Your task to perform on an android device: toggle location history Image 0: 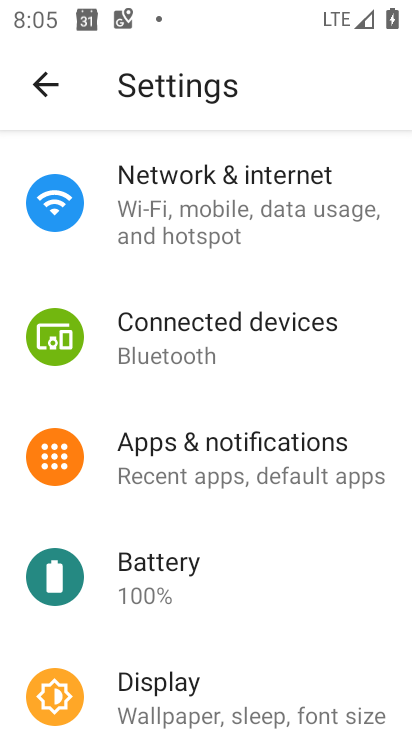
Step 0: press home button
Your task to perform on an android device: toggle location history Image 1: 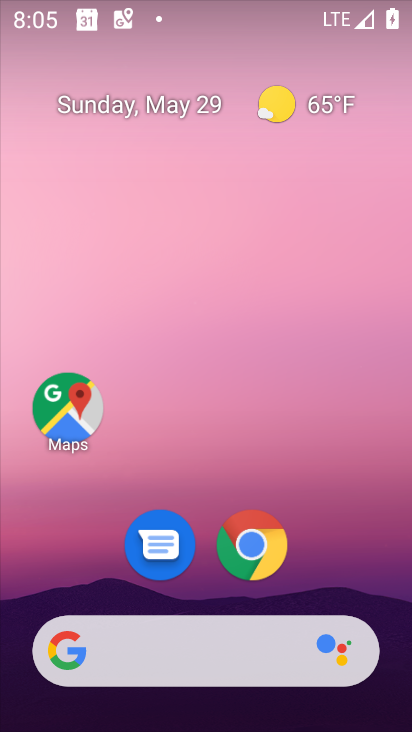
Step 1: drag from (234, 471) to (270, 246)
Your task to perform on an android device: toggle location history Image 2: 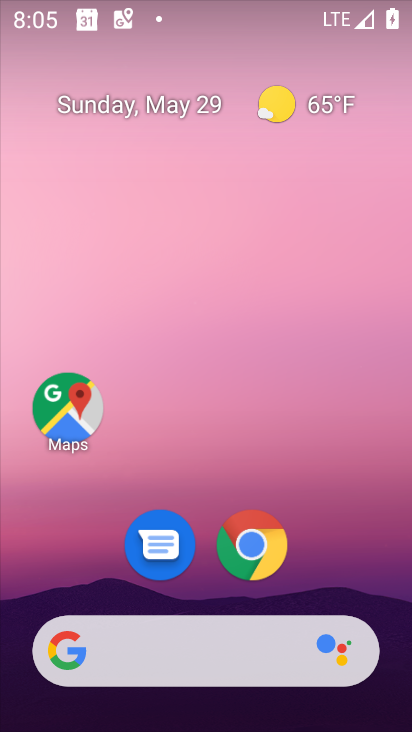
Step 2: drag from (192, 589) to (266, 224)
Your task to perform on an android device: toggle location history Image 3: 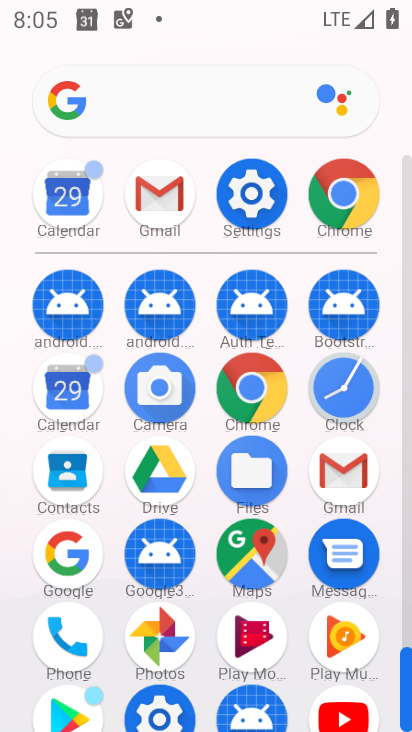
Step 3: click (248, 197)
Your task to perform on an android device: toggle location history Image 4: 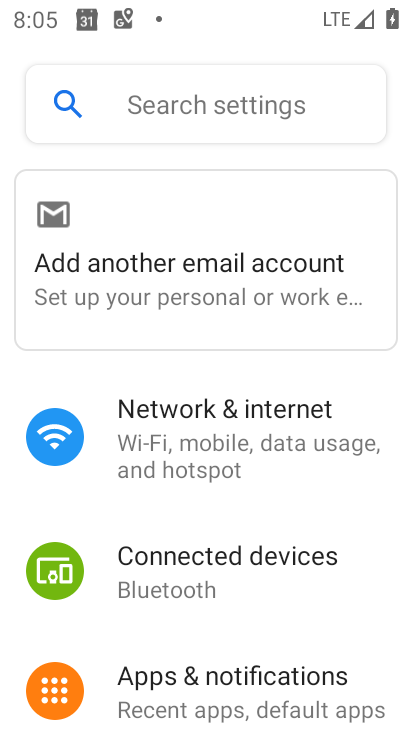
Step 4: drag from (233, 584) to (372, 231)
Your task to perform on an android device: toggle location history Image 5: 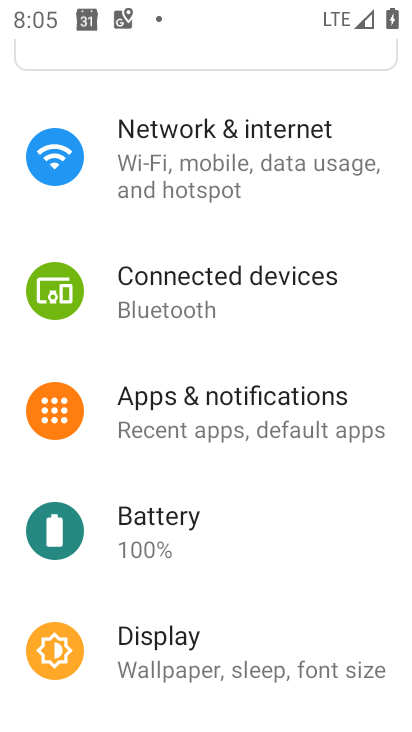
Step 5: drag from (233, 593) to (360, 200)
Your task to perform on an android device: toggle location history Image 6: 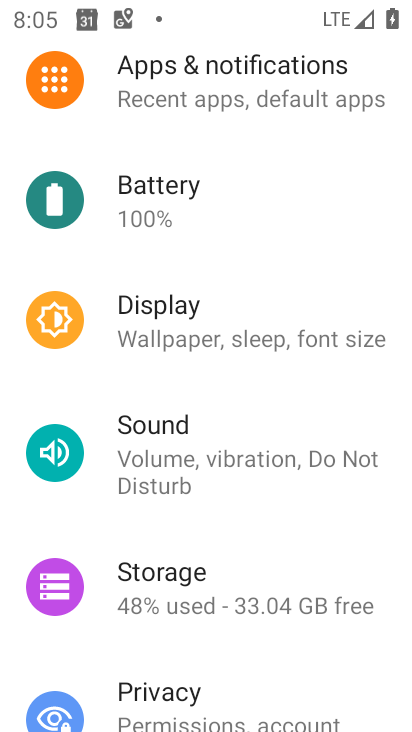
Step 6: drag from (253, 553) to (323, 211)
Your task to perform on an android device: toggle location history Image 7: 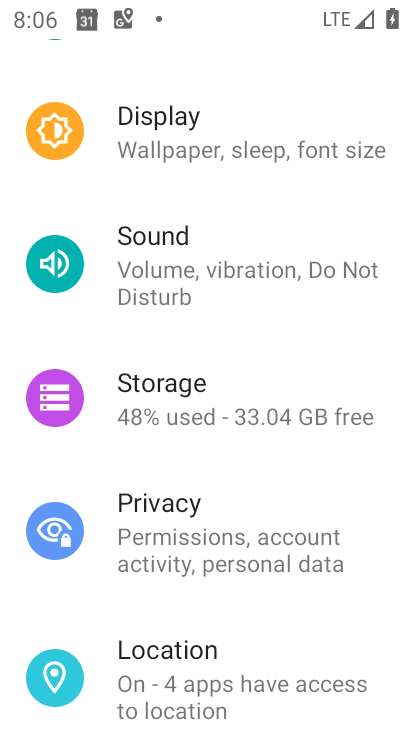
Step 7: click (196, 661)
Your task to perform on an android device: toggle location history Image 8: 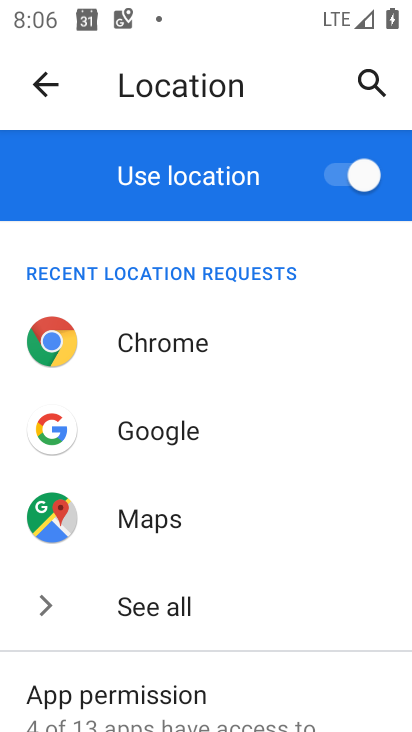
Step 8: click (341, 170)
Your task to perform on an android device: toggle location history Image 9: 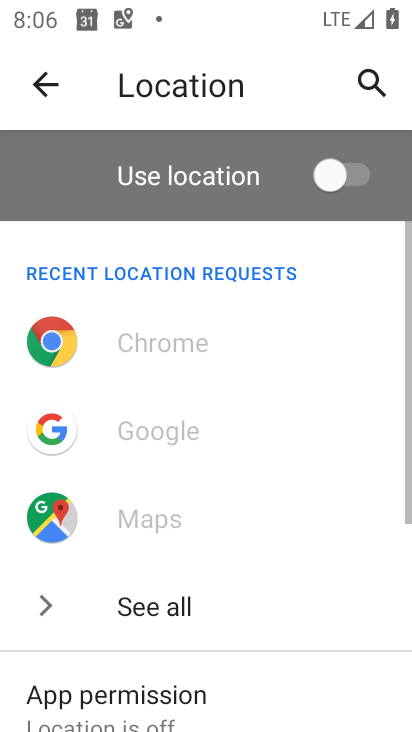
Step 9: task complete